Your task to perform on an android device: Open maps Image 0: 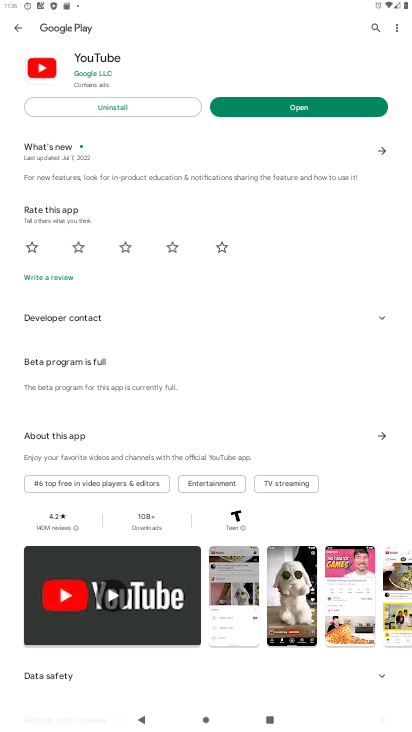
Step 0: press home button
Your task to perform on an android device: Open maps Image 1: 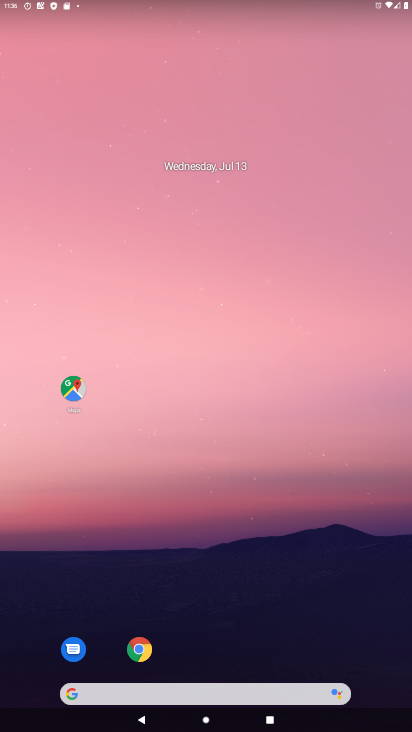
Step 1: click (71, 389)
Your task to perform on an android device: Open maps Image 2: 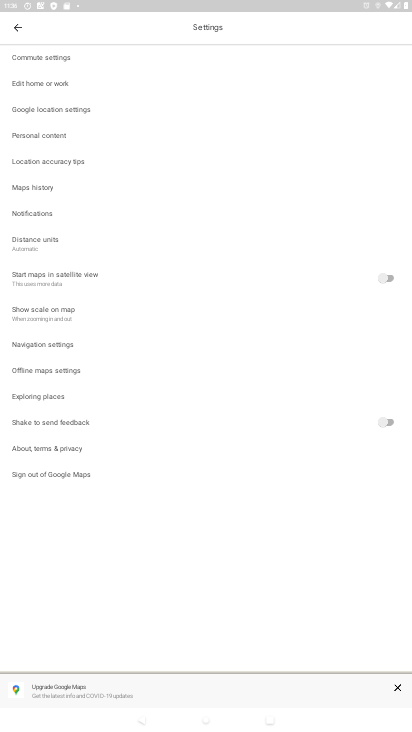
Step 2: task complete